Your task to perform on an android device: set default search engine in the chrome app Image 0: 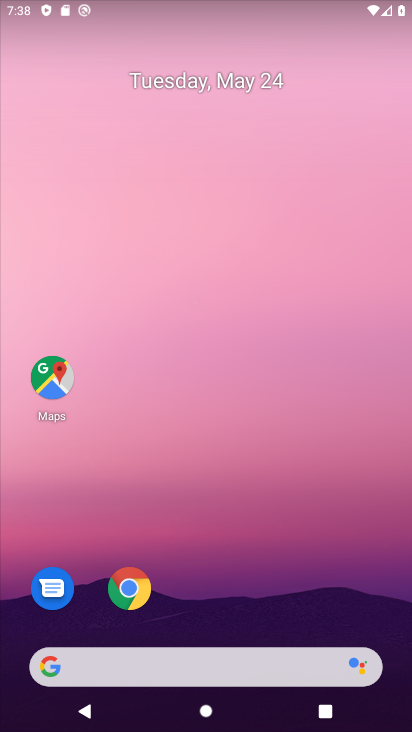
Step 0: drag from (192, 607) to (361, 10)
Your task to perform on an android device: set default search engine in the chrome app Image 1: 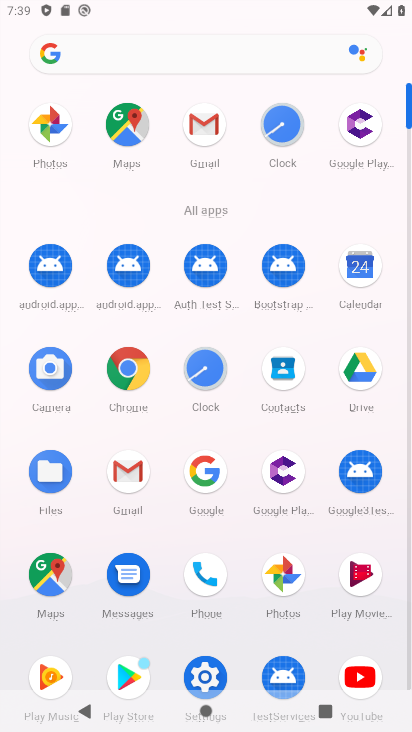
Step 1: click (116, 362)
Your task to perform on an android device: set default search engine in the chrome app Image 2: 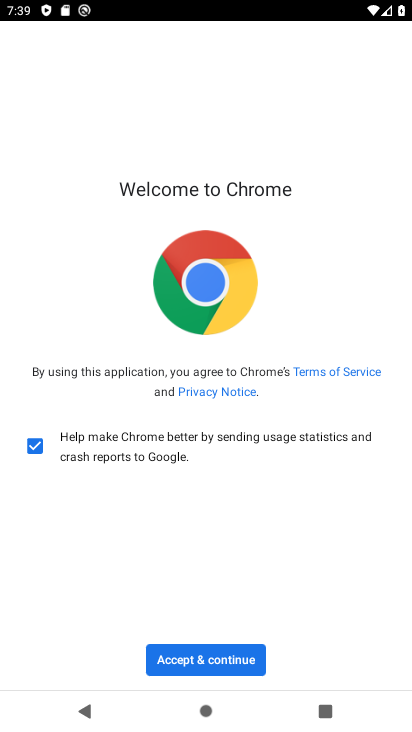
Step 2: click (195, 651)
Your task to perform on an android device: set default search engine in the chrome app Image 3: 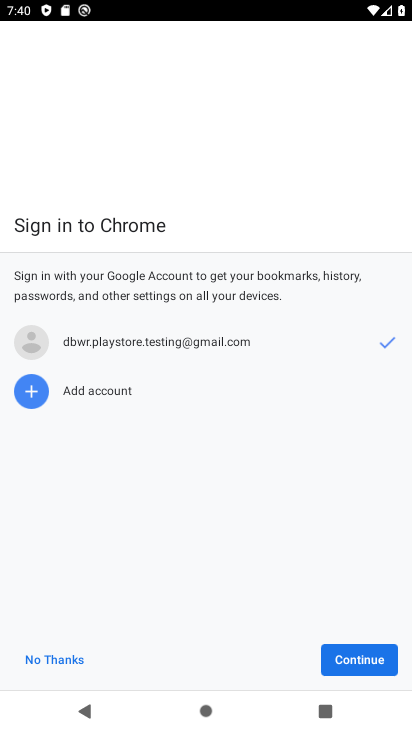
Step 3: click (55, 653)
Your task to perform on an android device: set default search engine in the chrome app Image 4: 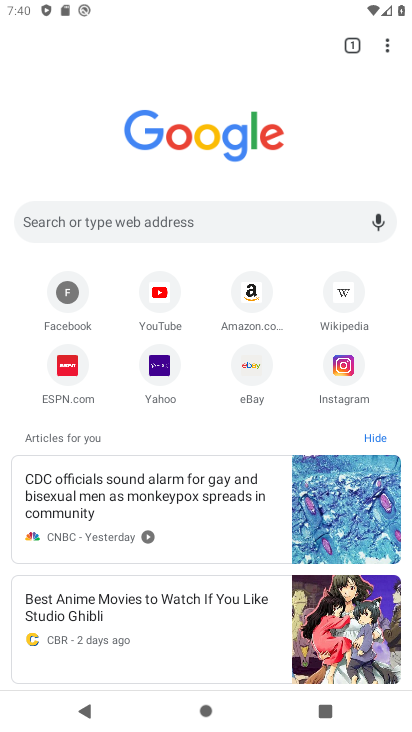
Step 4: click (393, 41)
Your task to perform on an android device: set default search engine in the chrome app Image 5: 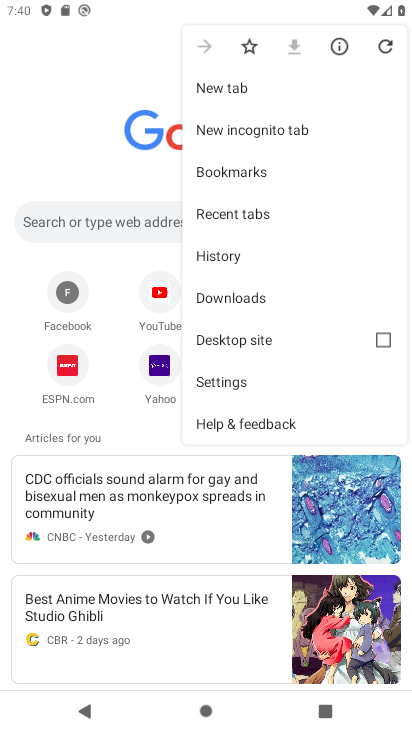
Step 5: click (262, 372)
Your task to perform on an android device: set default search engine in the chrome app Image 6: 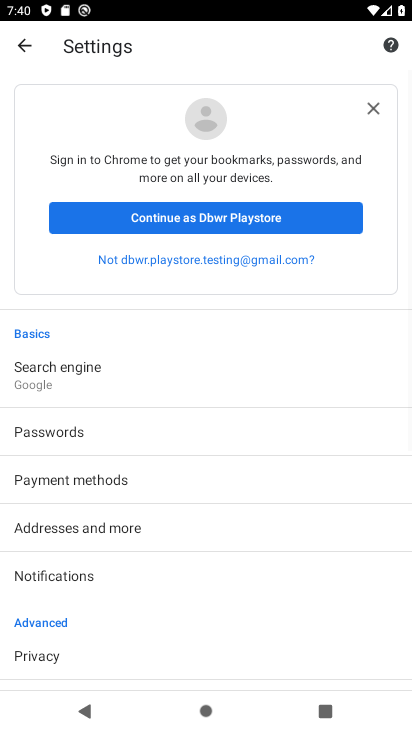
Step 6: click (92, 377)
Your task to perform on an android device: set default search engine in the chrome app Image 7: 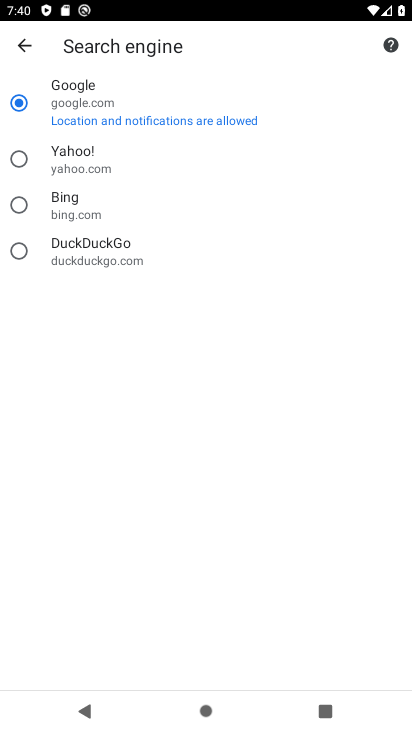
Step 7: task complete